Your task to perform on an android device: Open Youtube and go to "Your channel" Image 0: 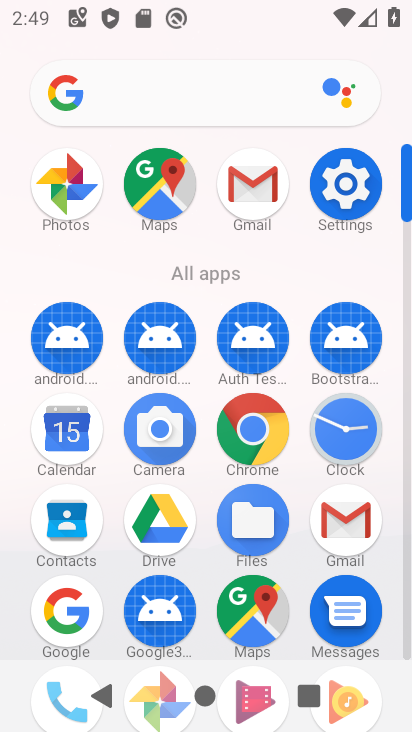
Step 0: click (408, 651)
Your task to perform on an android device: Open Youtube and go to "Your channel" Image 1: 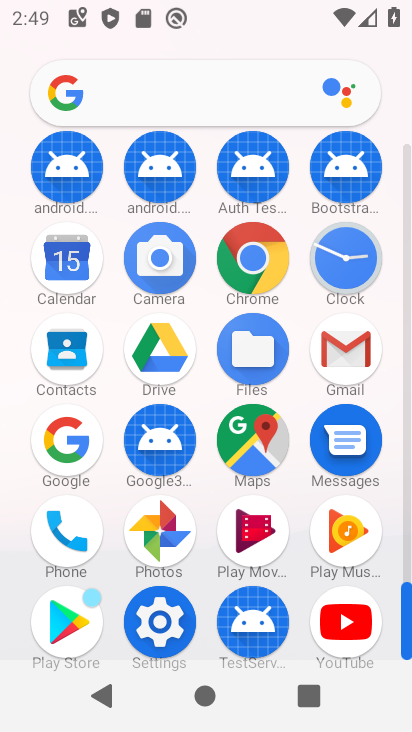
Step 1: click (353, 631)
Your task to perform on an android device: Open Youtube and go to "Your channel" Image 2: 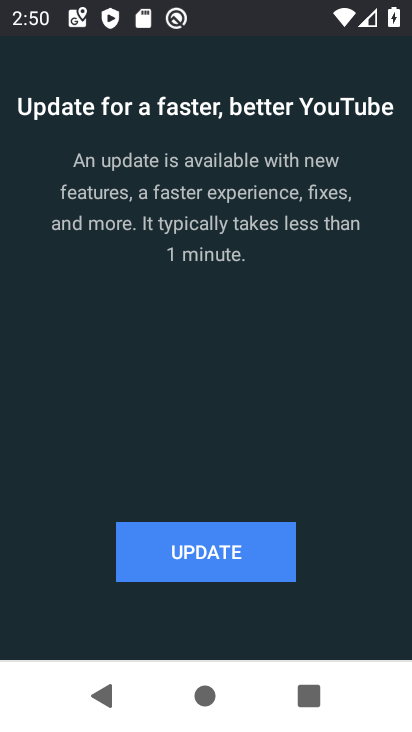
Step 2: click (239, 564)
Your task to perform on an android device: Open Youtube and go to "Your channel" Image 3: 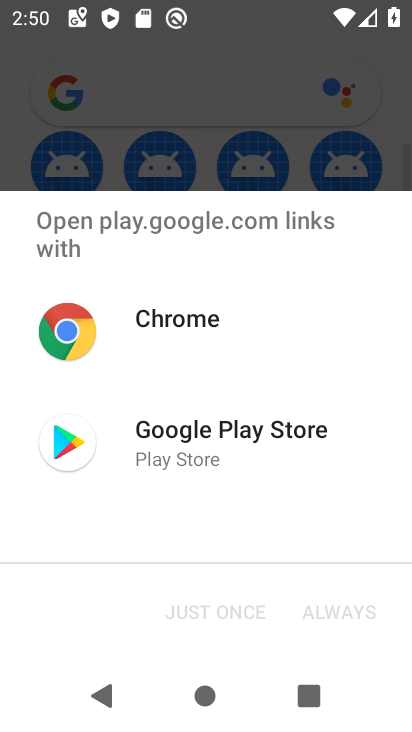
Step 3: click (228, 450)
Your task to perform on an android device: Open Youtube and go to "Your channel" Image 4: 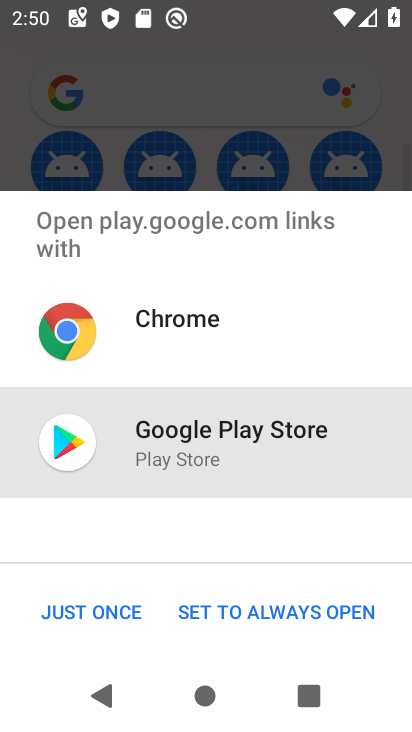
Step 4: click (132, 608)
Your task to perform on an android device: Open Youtube and go to "Your channel" Image 5: 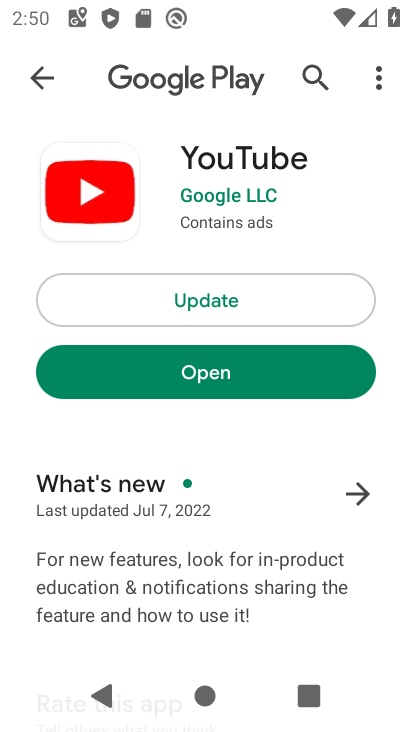
Step 5: click (207, 305)
Your task to perform on an android device: Open Youtube and go to "Your channel" Image 6: 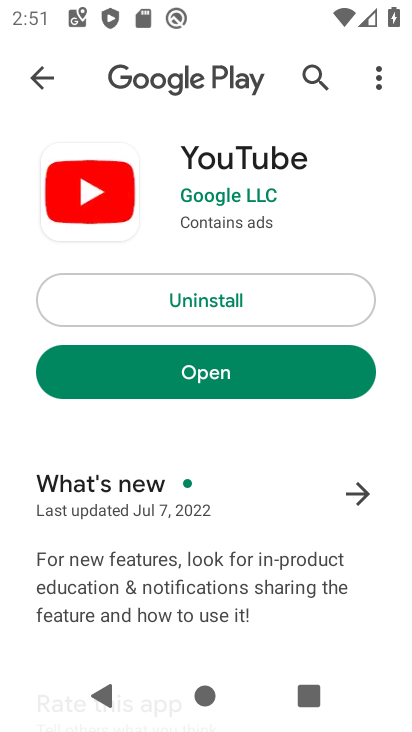
Step 6: click (264, 377)
Your task to perform on an android device: Open Youtube and go to "Your channel" Image 7: 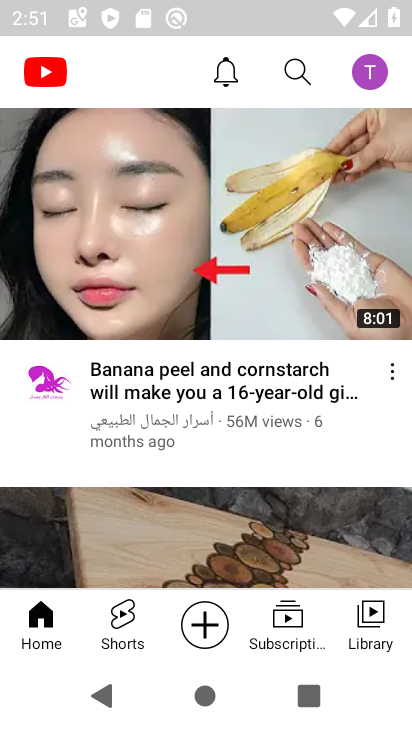
Step 7: click (365, 85)
Your task to perform on an android device: Open Youtube and go to "Your channel" Image 8: 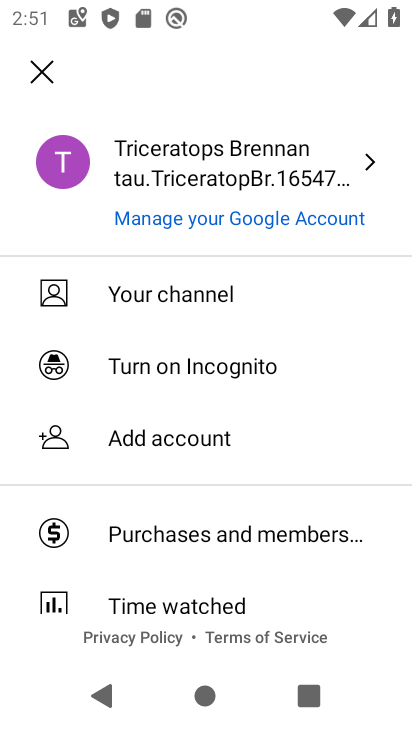
Step 8: click (157, 296)
Your task to perform on an android device: Open Youtube and go to "Your channel" Image 9: 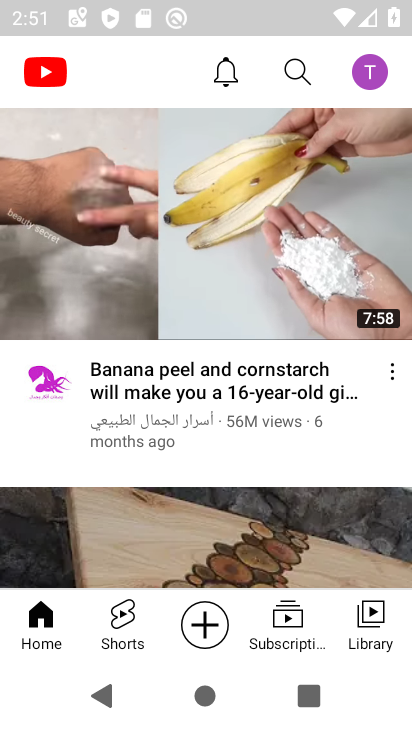
Step 9: task complete